Your task to perform on an android device: Open location settings Image 0: 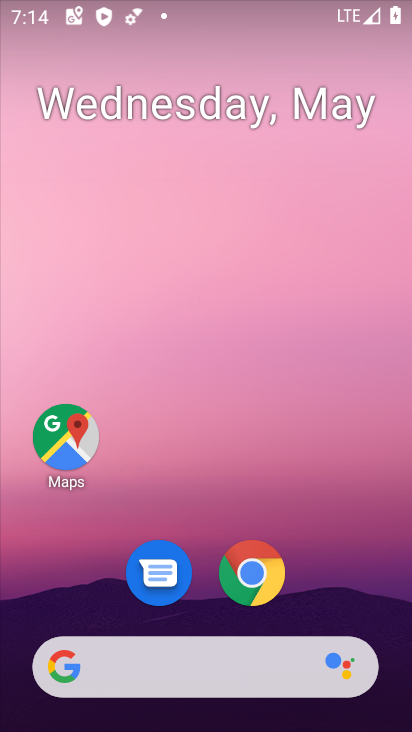
Step 0: drag from (303, 594) to (291, 272)
Your task to perform on an android device: Open location settings Image 1: 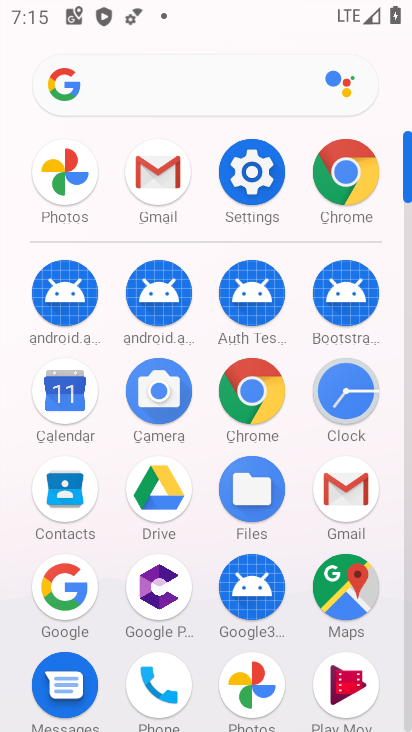
Step 1: click (250, 212)
Your task to perform on an android device: Open location settings Image 2: 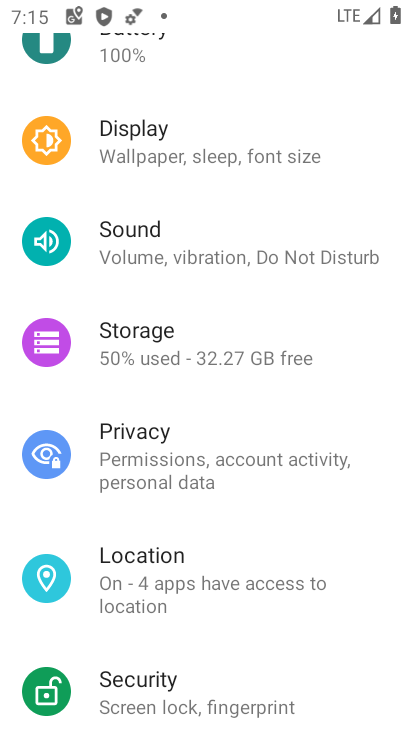
Step 2: drag from (271, 424) to (271, 514)
Your task to perform on an android device: Open location settings Image 3: 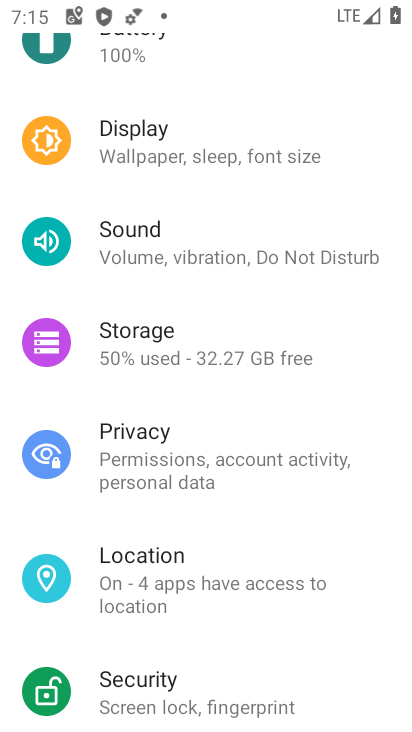
Step 3: click (158, 587)
Your task to perform on an android device: Open location settings Image 4: 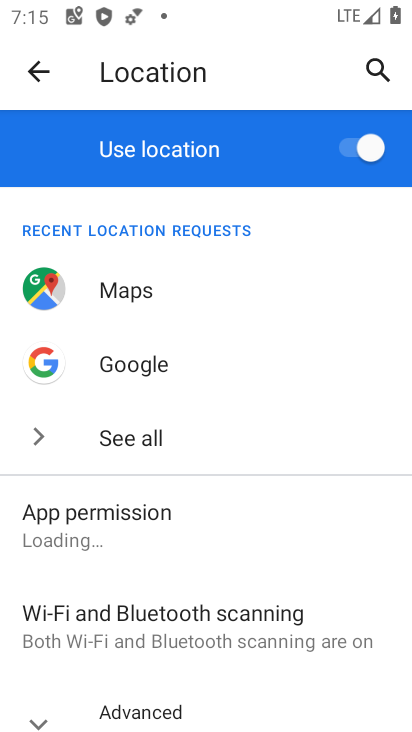
Step 4: task complete